Your task to perform on an android device: toggle sleep mode Image 0: 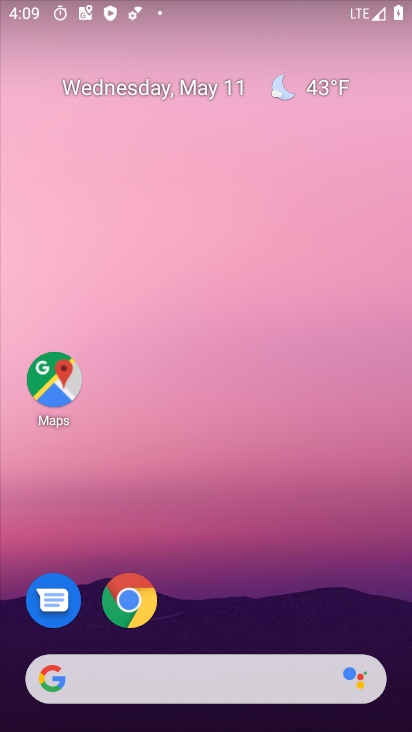
Step 0: drag from (365, 600) to (335, 9)
Your task to perform on an android device: toggle sleep mode Image 1: 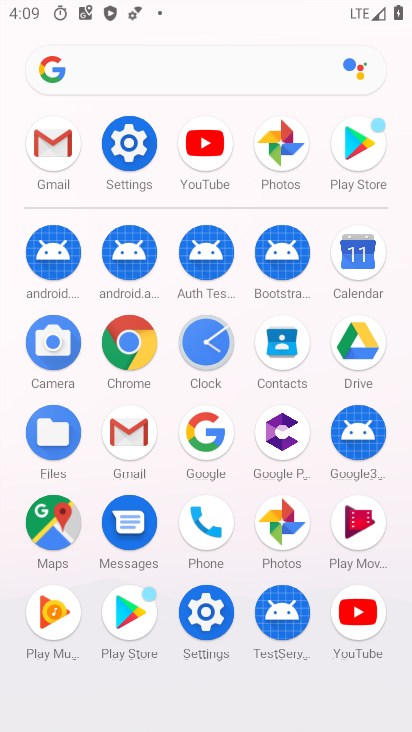
Step 1: click (127, 172)
Your task to perform on an android device: toggle sleep mode Image 2: 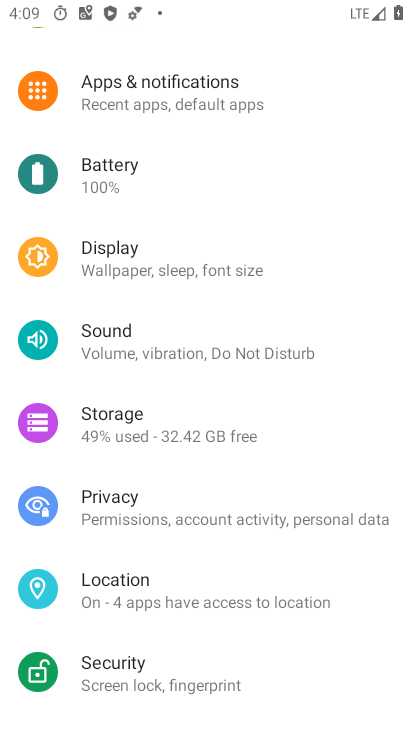
Step 2: click (121, 259)
Your task to perform on an android device: toggle sleep mode Image 3: 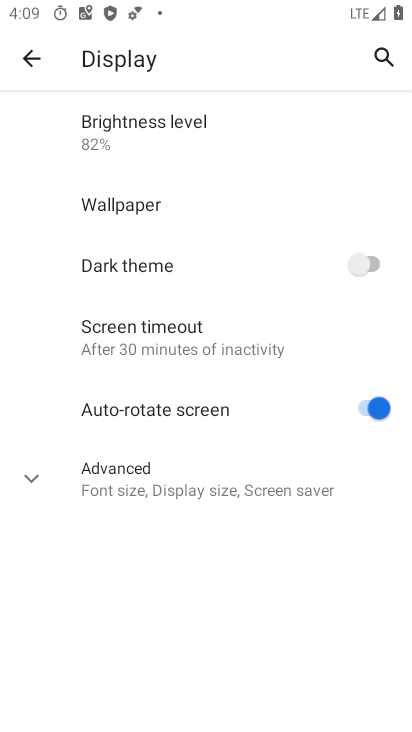
Step 3: click (31, 483)
Your task to perform on an android device: toggle sleep mode Image 4: 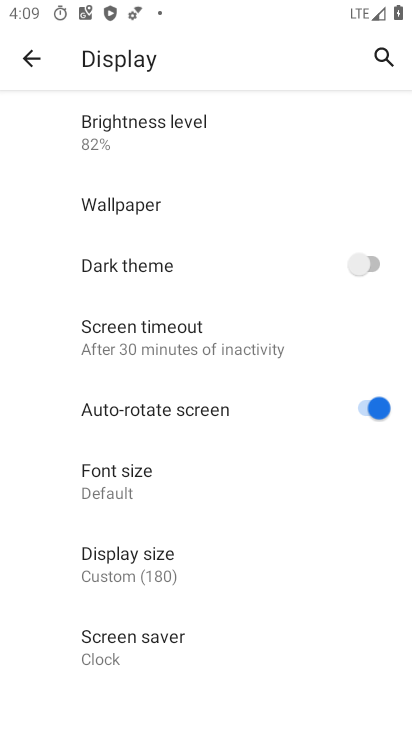
Step 4: task complete